Your task to perform on an android device: Open Maps and search for coffee Image 0: 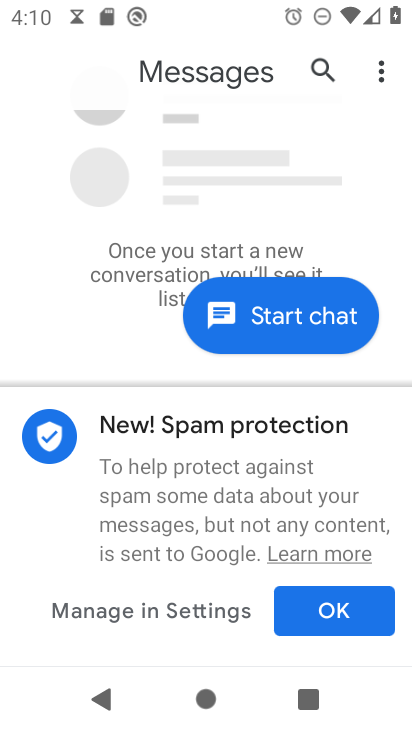
Step 0: press home button
Your task to perform on an android device: Open Maps and search for coffee Image 1: 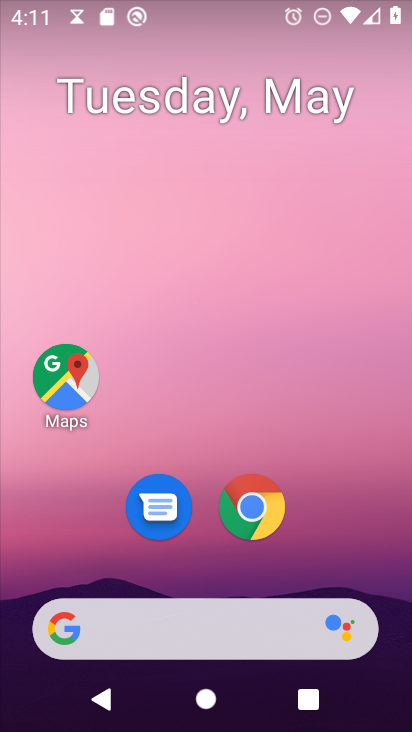
Step 1: click (50, 383)
Your task to perform on an android device: Open Maps and search for coffee Image 2: 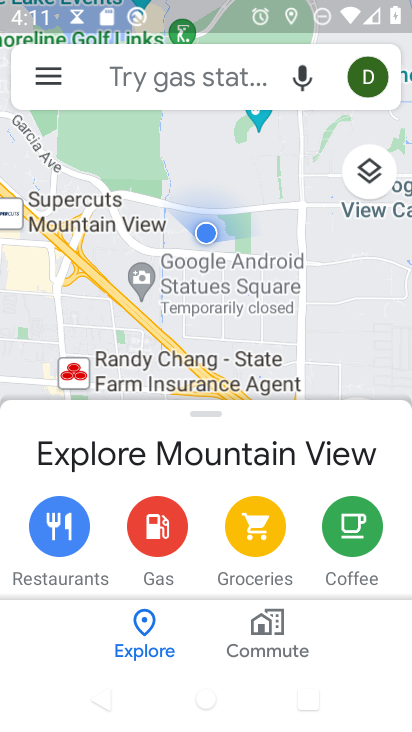
Step 2: click (141, 76)
Your task to perform on an android device: Open Maps and search for coffee Image 3: 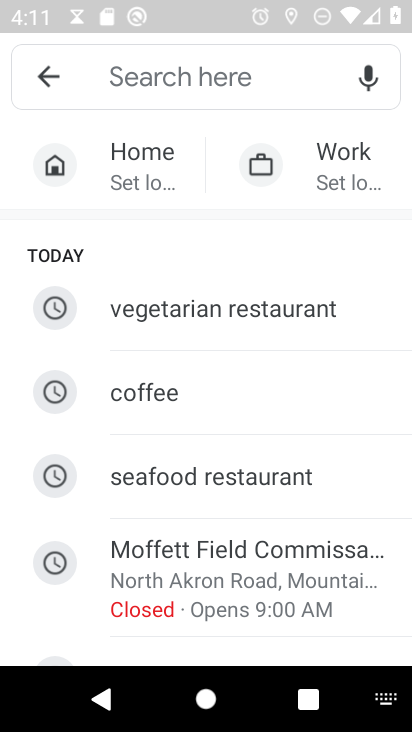
Step 3: type "coffee"
Your task to perform on an android device: Open Maps and search for coffee Image 4: 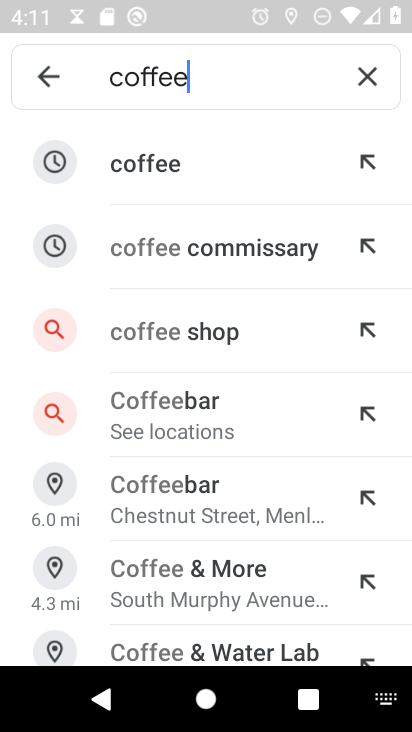
Step 4: click (143, 160)
Your task to perform on an android device: Open Maps and search for coffee Image 5: 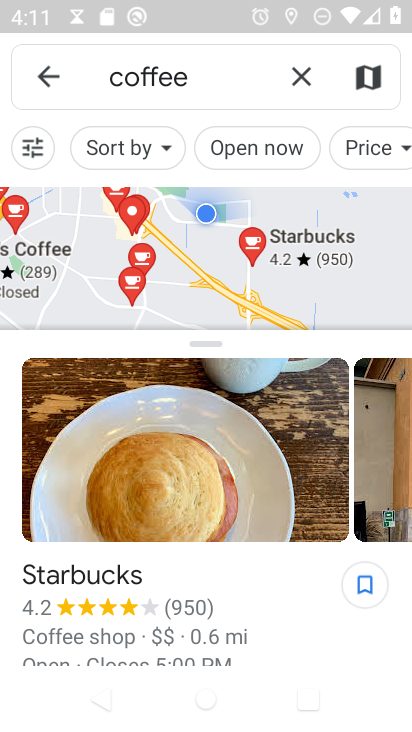
Step 5: task complete